Your task to perform on an android device: check android version Image 0: 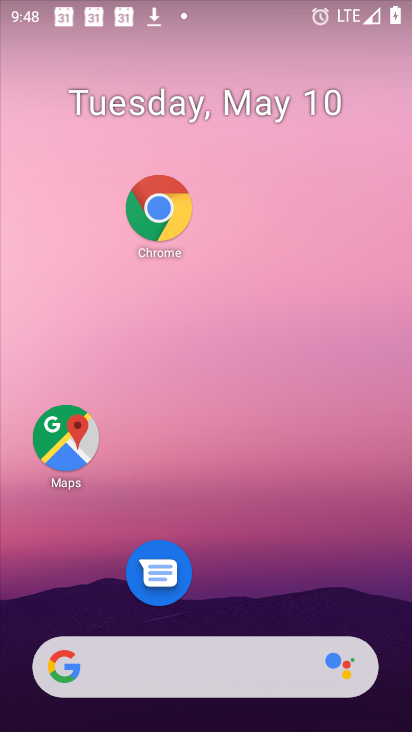
Step 0: drag from (277, 710) to (357, 187)
Your task to perform on an android device: check android version Image 1: 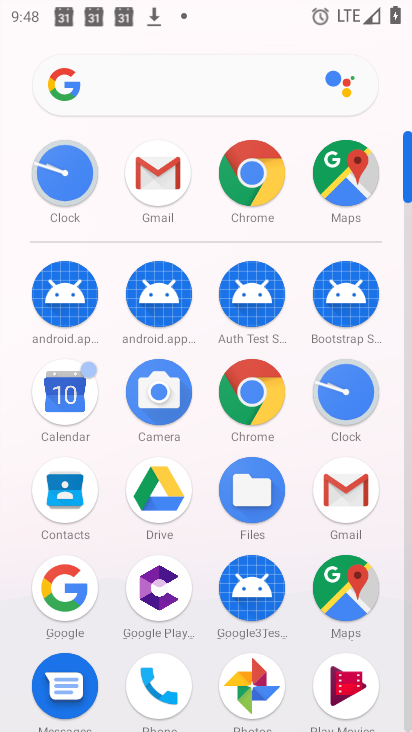
Step 1: drag from (208, 543) to (211, 387)
Your task to perform on an android device: check android version Image 2: 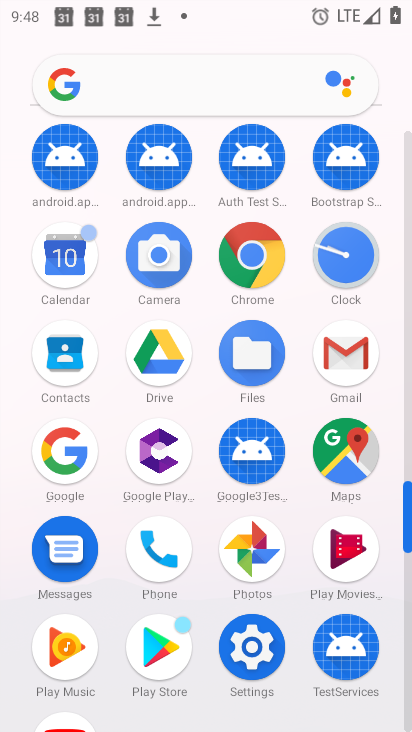
Step 2: click (238, 640)
Your task to perform on an android device: check android version Image 3: 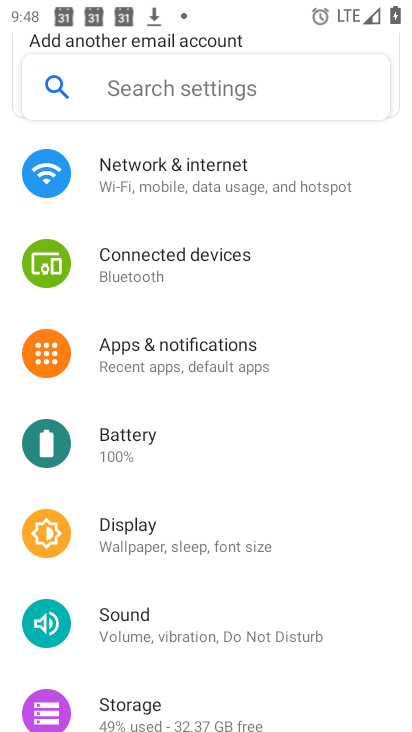
Step 3: click (193, 103)
Your task to perform on an android device: check android version Image 4: 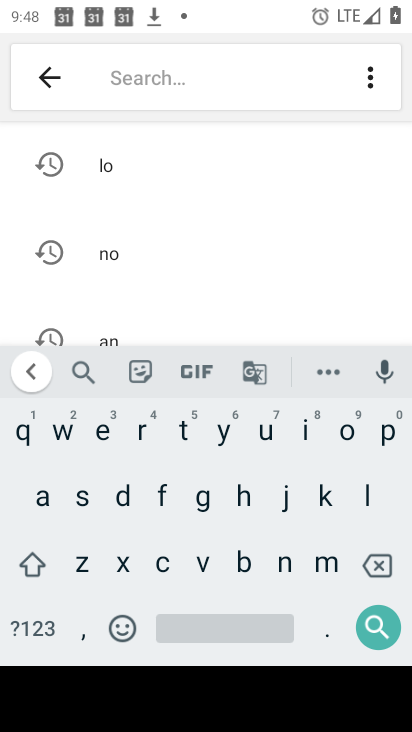
Step 4: click (38, 504)
Your task to perform on an android device: check android version Image 5: 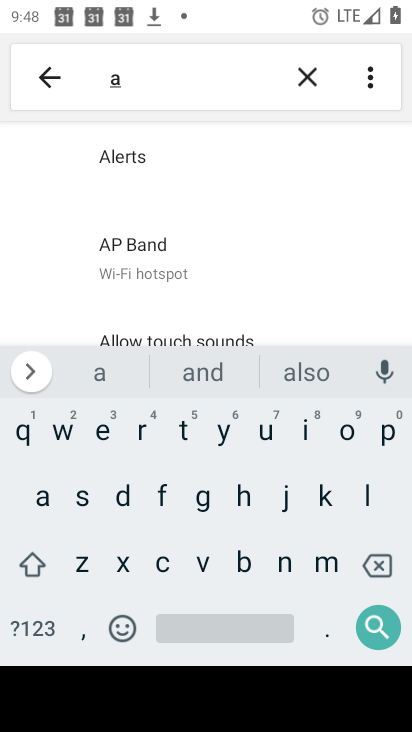
Step 5: click (289, 560)
Your task to perform on an android device: check android version Image 6: 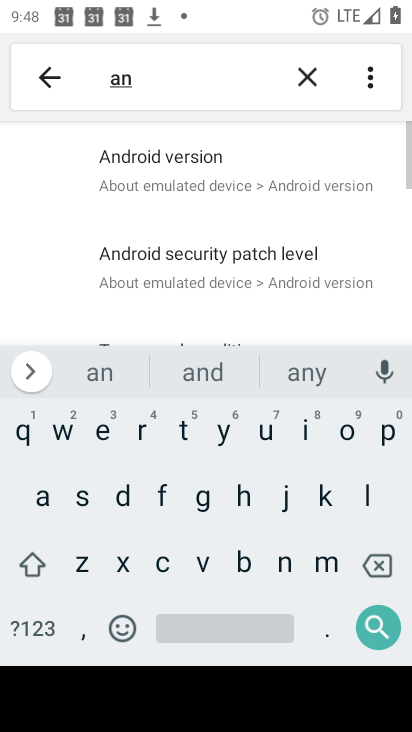
Step 6: click (204, 172)
Your task to perform on an android device: check android version Image 7: 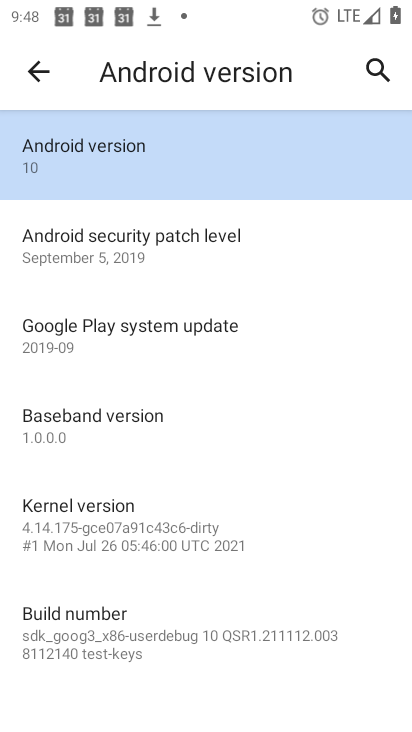
Step 7: click (186, 174)
Your task to perform on an android device: check android version Image 8: 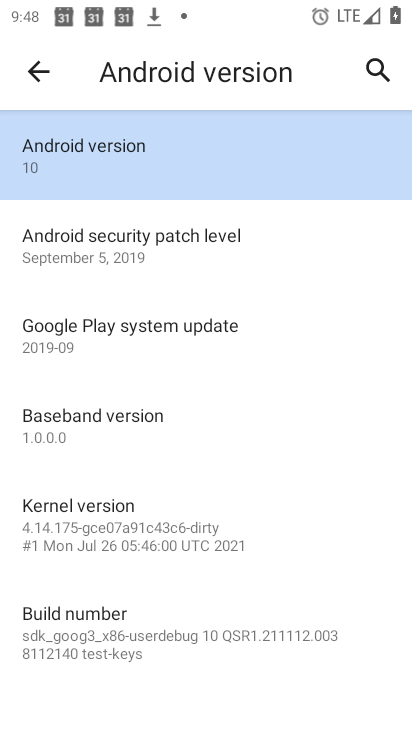
Step 8: task complete